Your task to perform on an android device: turn vacation reply on in the gmail app Image 0: 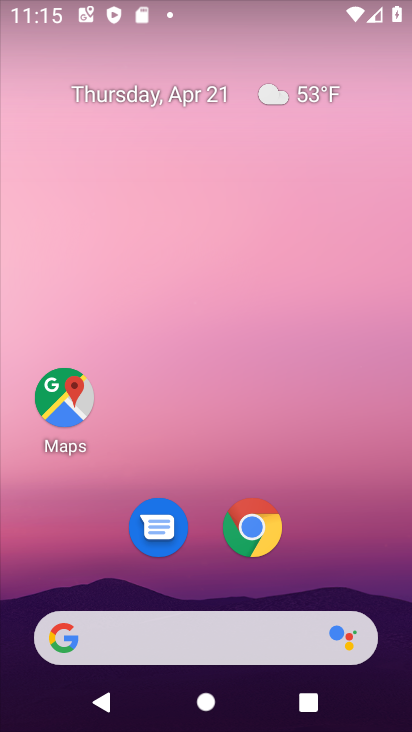
Step 0: drag from (366, 558) to (356, 107)
Your task to perform on an android device: turn vacation reply on in the gmail app Image 1: 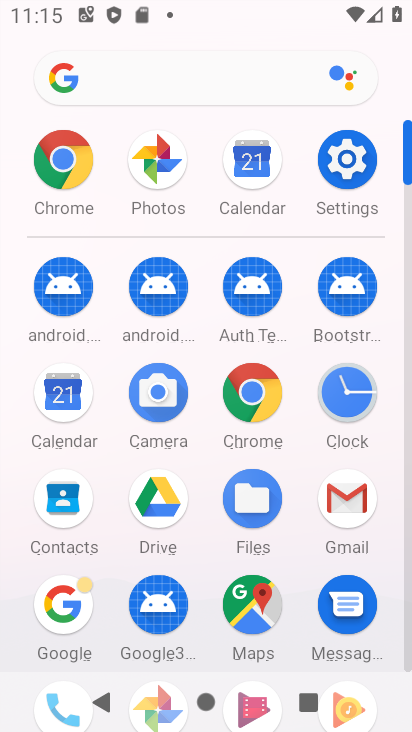
Step 1: click (336, 498)
Your task to perform on an android device: turn vacation reply on in the gmail app Image 2: 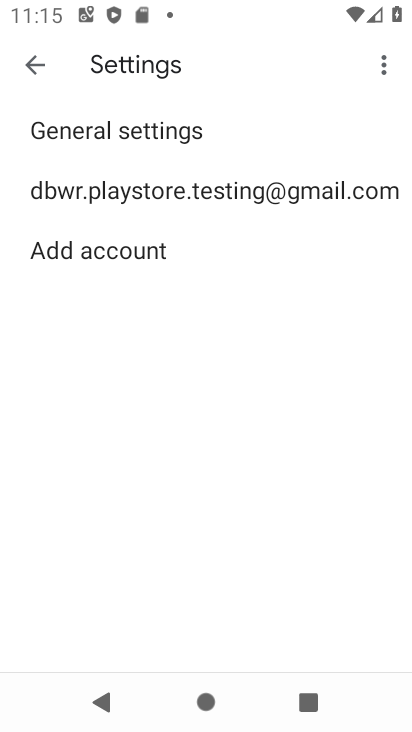
Step 2: click (279, 192)
Your task to perform on an android device: turn vacation reply on in the gmail app Image 3: 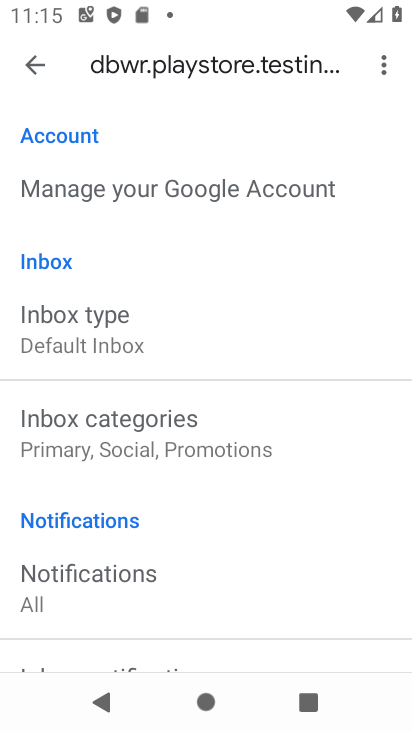
Step 3: drag from (342, 545) to (343, 432)
Your task to perform on an android device: turn vacation reply on in the gmail app Image 4: 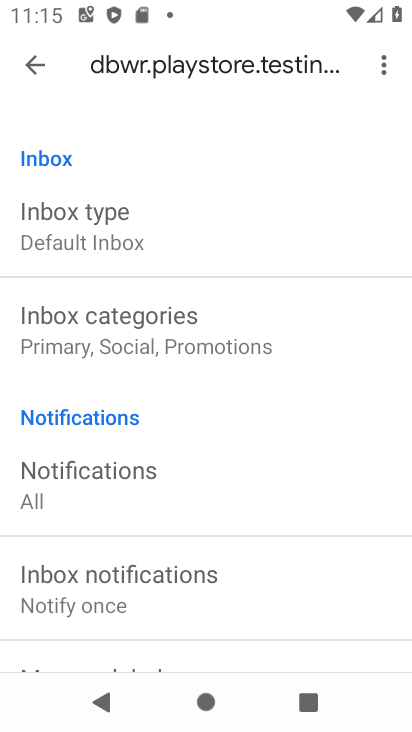
Step 4: drag from (344, 576) to (344, 437)
Your task to perform on an android device: turn vacation reply on in the gmail app Image 5: 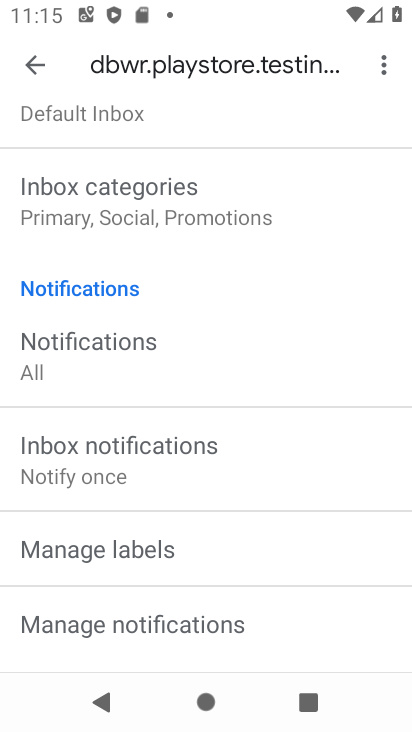
Step 5: drag from (349, 585) to (350, 444)
Your task to perform on an android device: turn vacation reply on in the gmail app Image 6: 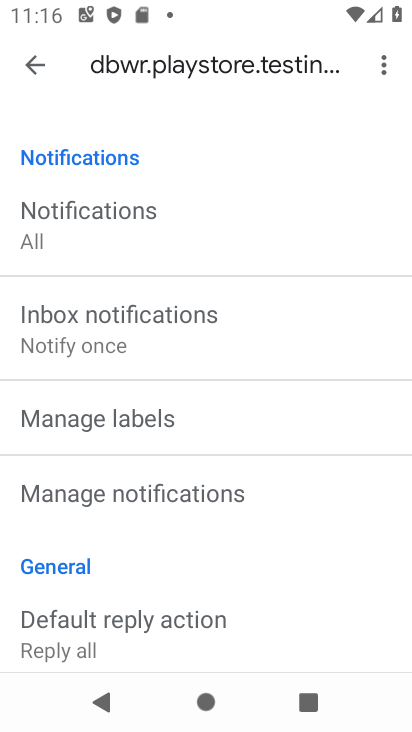
Step 6: drag from (340, 566) to (341, 443)
Your task to perform on an android device: turn vacation reply on in the gmail app Image 7: 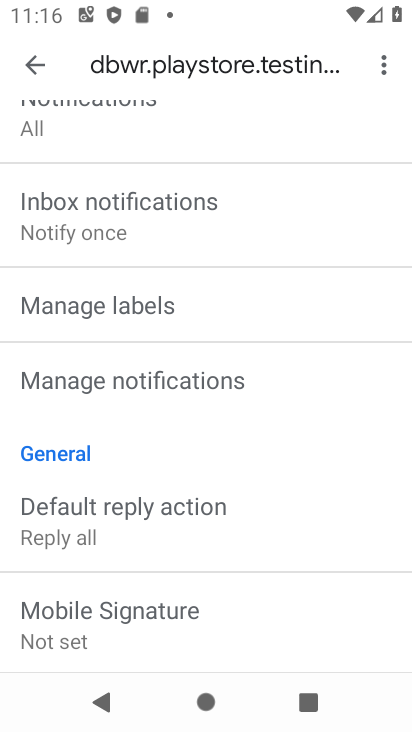
Step 7: drag from (345, 582) to (342, 431)
Your task to perform on an android device: turn vacation reply on in the gmail app Image 8: 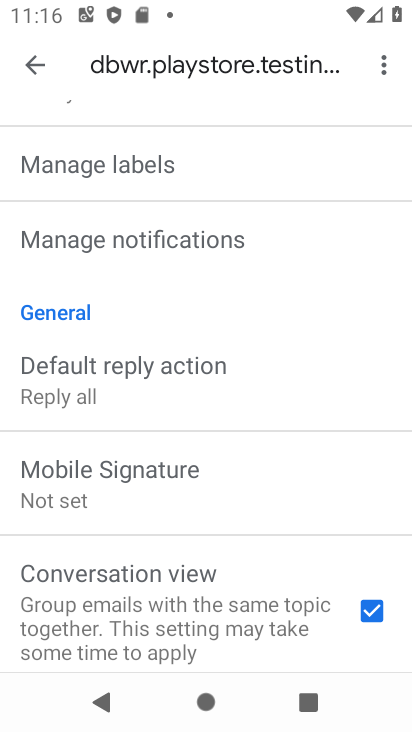
Step 8: drag from (325, 546) to (330, 426)
Your task to perform on an android device: turn vacation reply on in the gmail app Image 9: 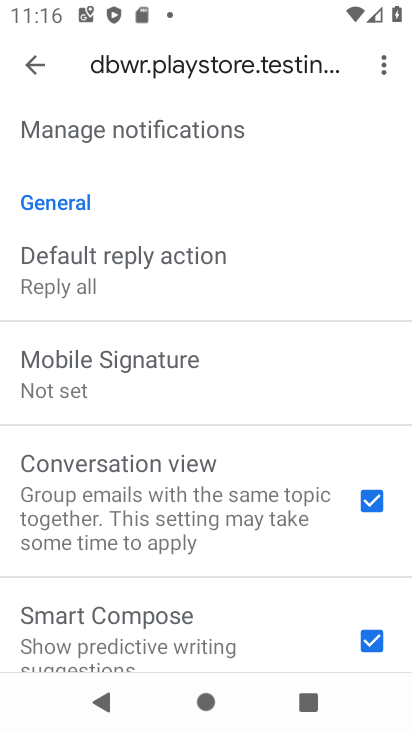
Step 9: drag from (306, 588) to (316, 461)
Your task to perform on an android device: turn vacation reply on in the gmail app Image 10: 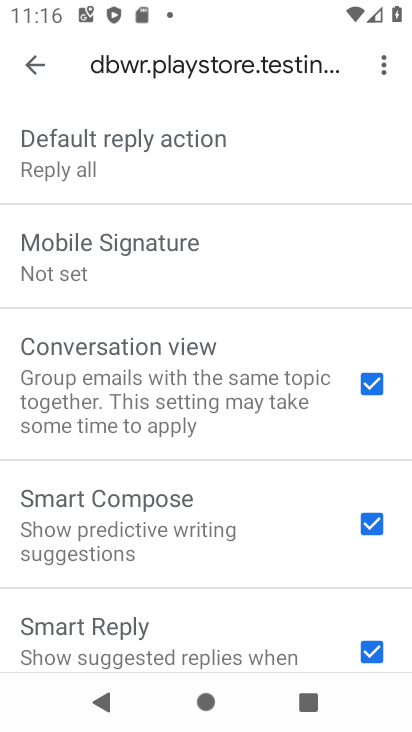
Step 10: drag from (317, 597) to (321, 462)
Your task to perform on an android device: turn vacation reply on in the gmail app Image 11: 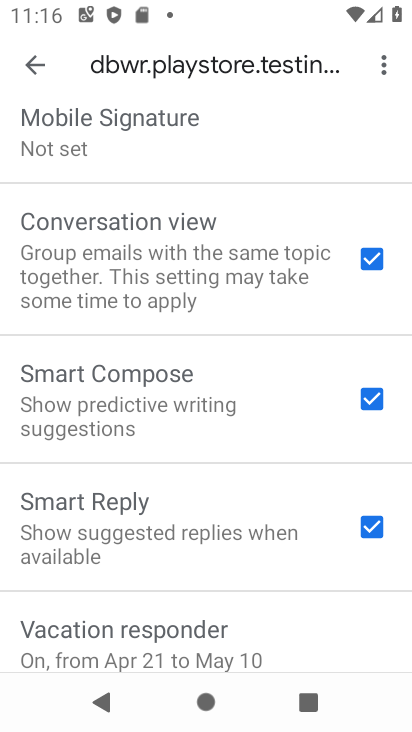
Step 11: drag from (316, 595) to (319, 461)
Your task to perform on an android device: turn vacation reply on in the gmail app Image 12: 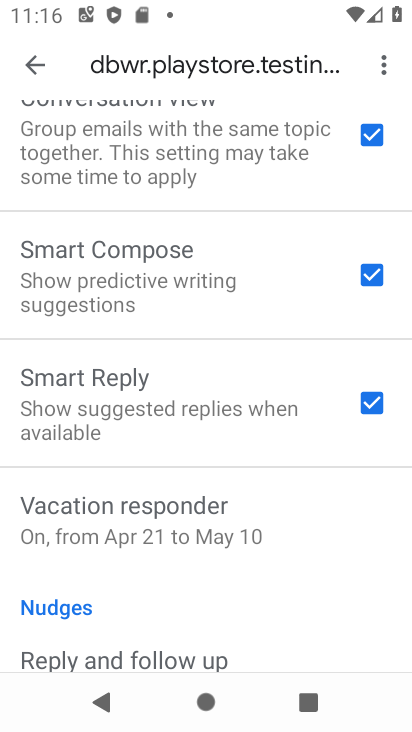
Step 12: drag from (315, 588) to (313, 460)
Your task to perform on an android device: turn vacation reply on in the gmail app Image 13: 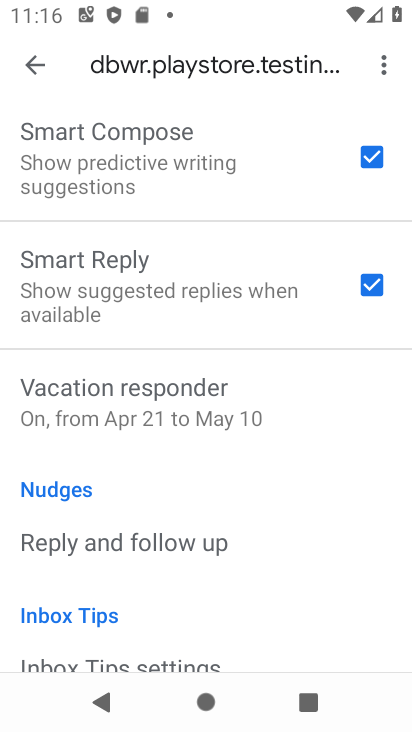
Step 13: drag from (308, 586) to (307, 465)
Your task to perform on an android device: turn vacation reply on in the gmail app Image 14: 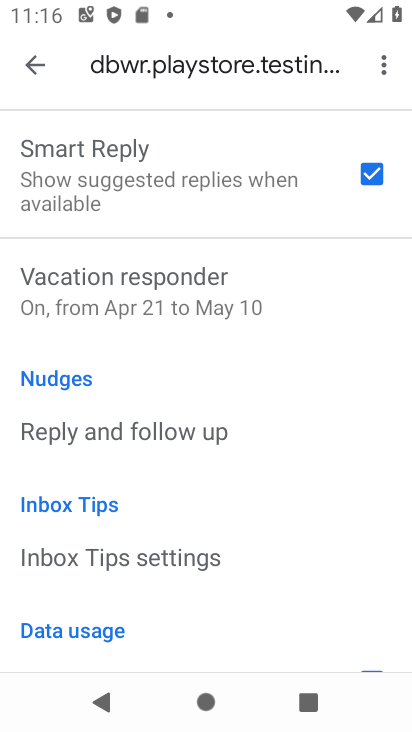
Step 14: click (184, 292)
Your task to perform on an android device: turn vacation reply on in the gmail app Image 15: 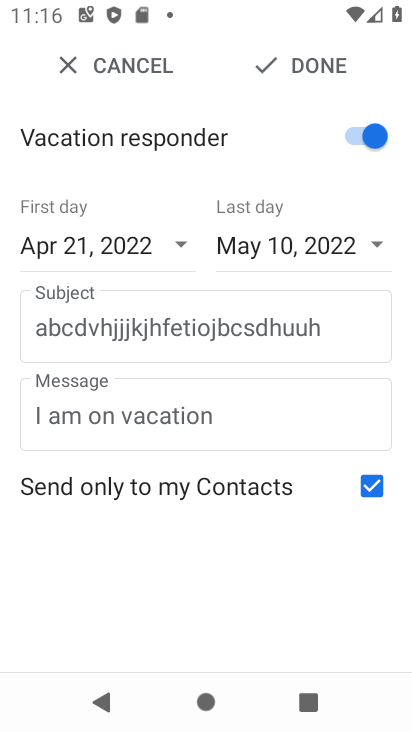
Step 15: task complete